Your task to perform on an android device: Set the phone to "Do not disturb". Image 0: 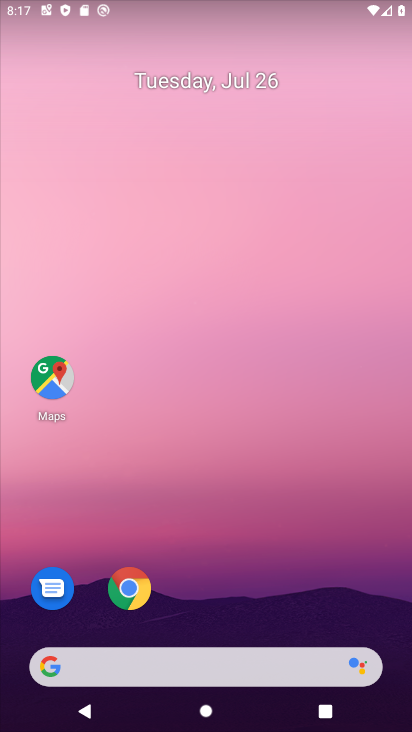
Step 0: drag from (265, 621) to (223, 13)
Your task to perform on an android device: Set the phone to "Do not disturb". Image 1: 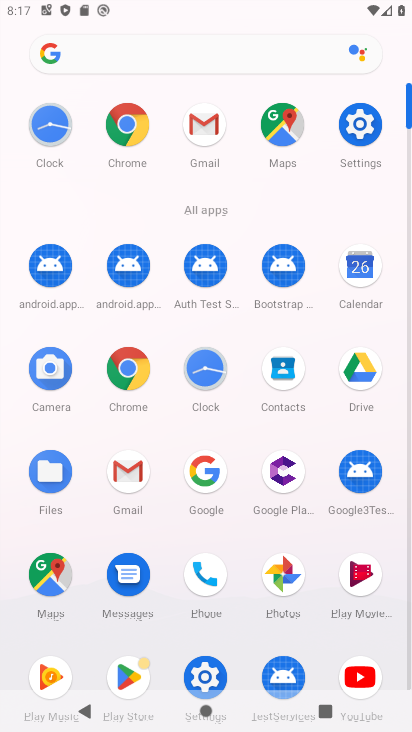
Step 1: click (364, 125)
Your task to perform on an android device: Set the phone to "Do not disturb". Image 2: 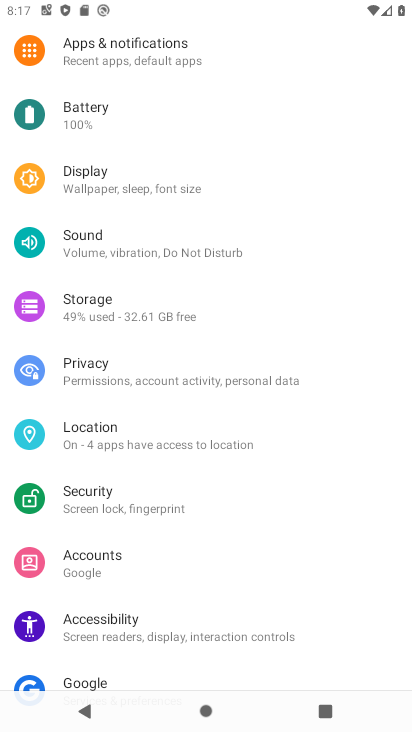
Step 2: click (96, 248)
Your task to perform on an android device: Set the phone to "Do not disturb". Image 3: 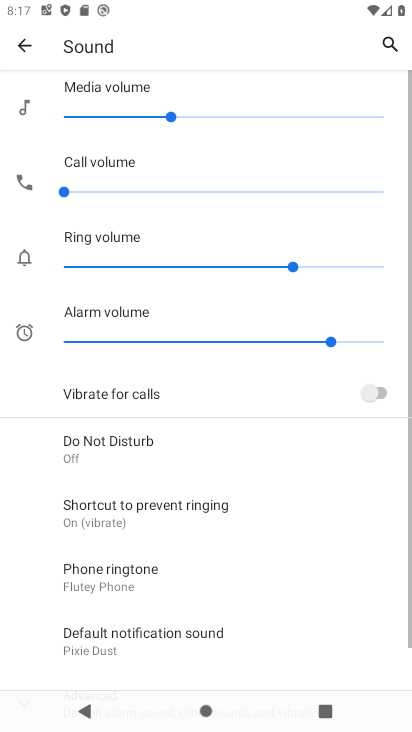
Step 3: click (135, 450)
Your task to perform on an android device: Set the phone to "Do not disturb". Image 4: 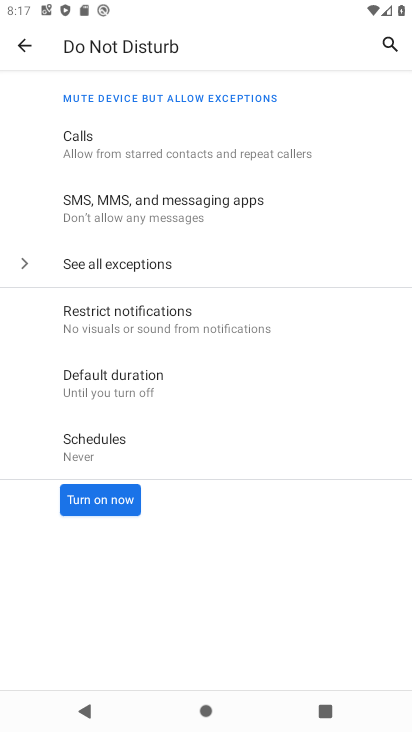
Step 4: click (111, 502)
Your task to perform on an android device: Set the phone to "Do not disturb". Image 5: 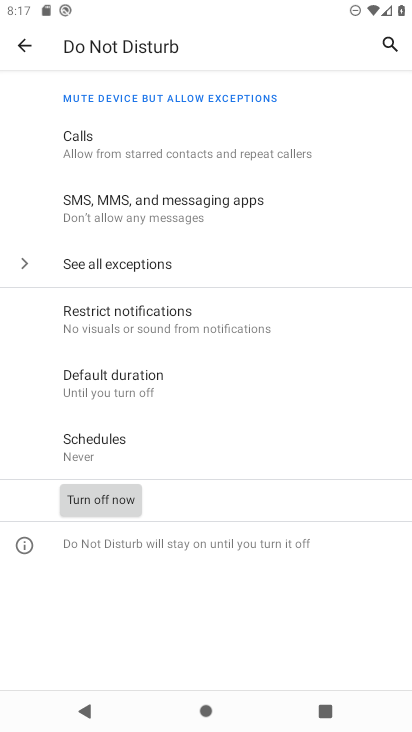
Step 5: task complete